Your task to perform on an android device: check data usage Image 0: 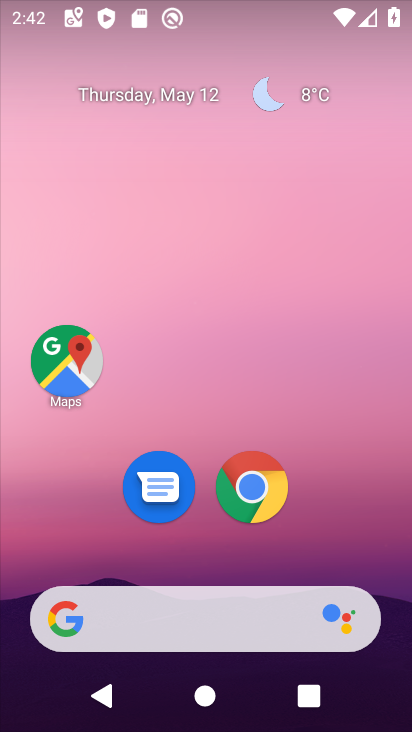
Step 0: drag from (333, 476) to (275, 115)
Your task to perform on an android device: check data usage Image 1: 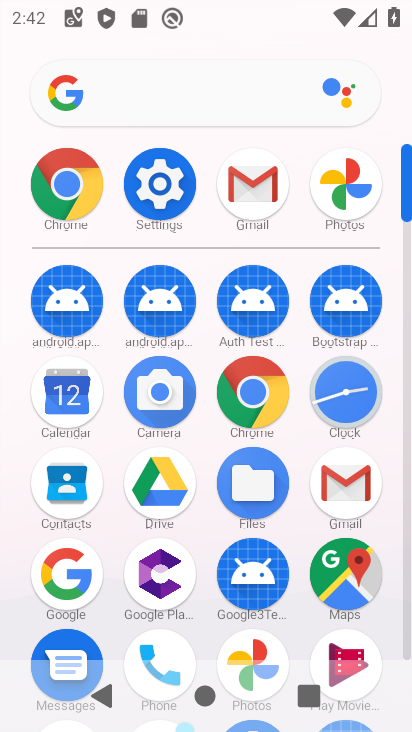
Step 1: click (171, 192)
Your task to perform on an android device: check data usage Image 2: 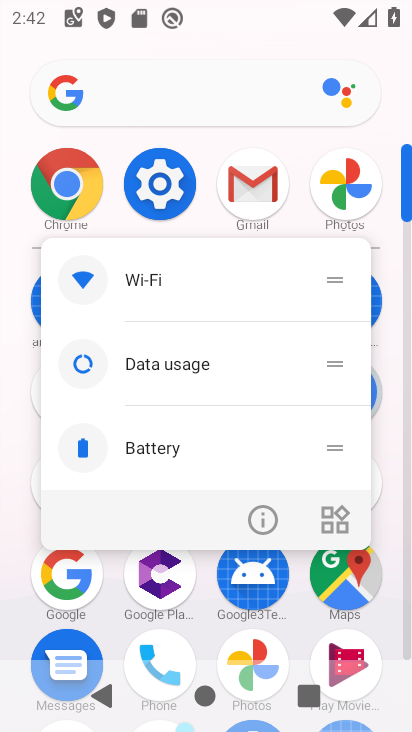
Step 2: click (161, 185)
Your task to perform on an android device: check data usage Image 3: 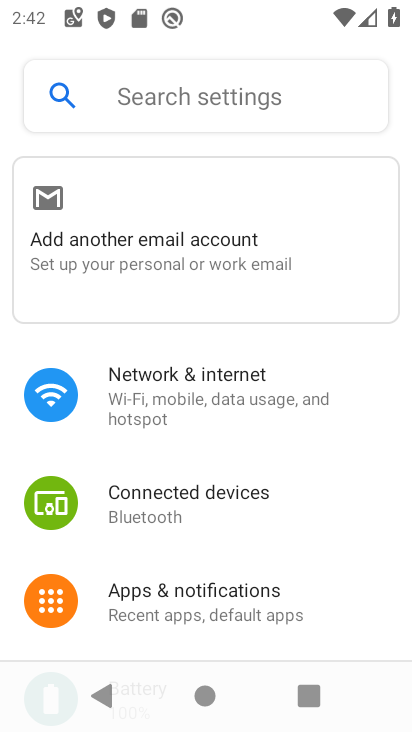
Step 3: drag from (263, 541) to (269, 195)
Your task to perform on an android device: check data usage Image 4: 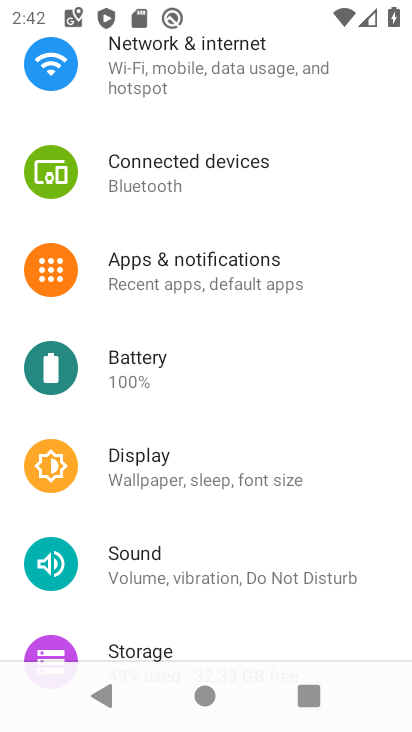
Step 4: click (228, 73)
Your task to perform on an android device: check data usage Image 5: 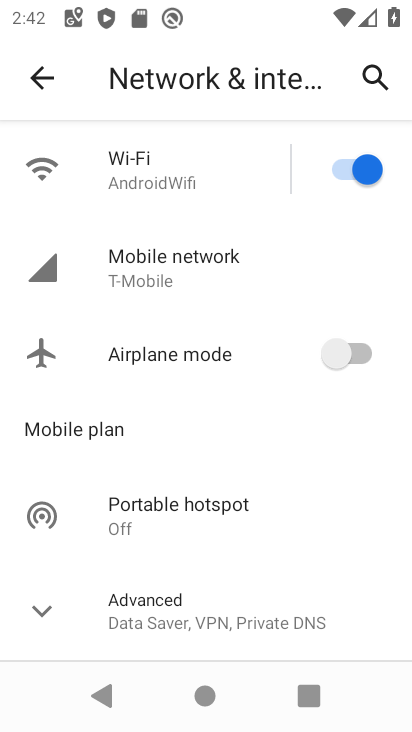
Step 5: click (149, 238)
Your task to perform on an android device: check data usage Image 6: 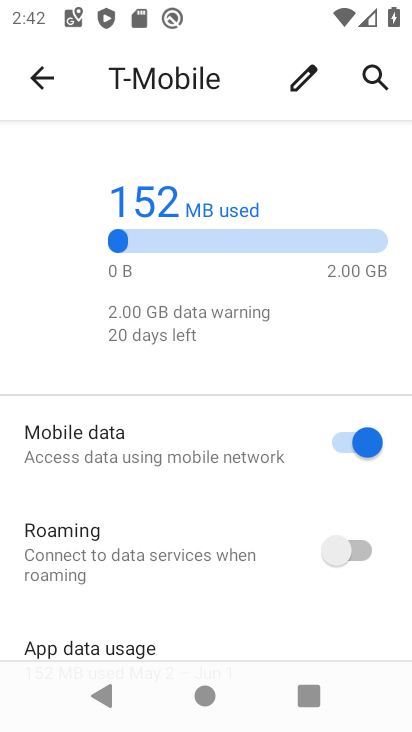
Step 6: task complete